Your task to perform on an android device: open app "VLC for Android" (install if not already installed), go to login, and select forgot password Image 0: 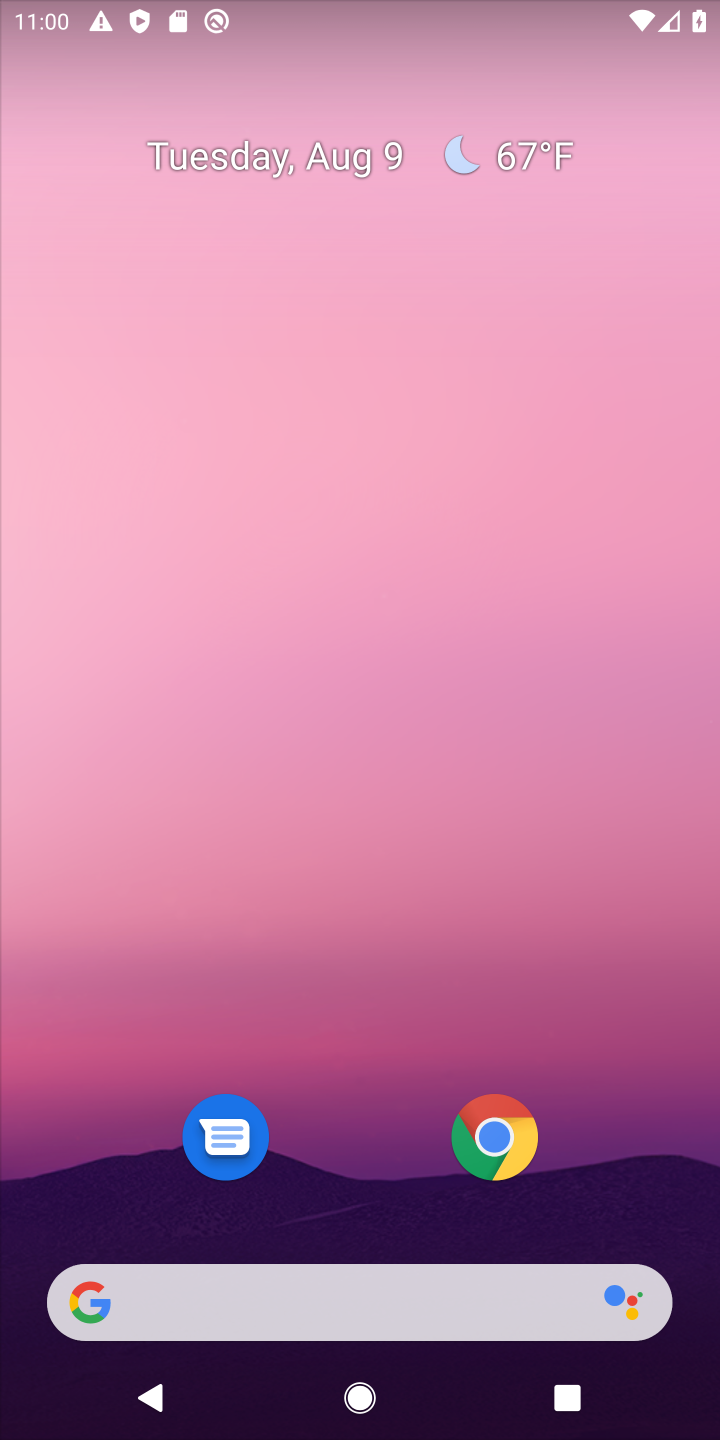
Step 0: drag from (629, 1196) to (375, 24)
Your task to perform on an android device: open app "VLC for Android" (install if not already installed), go to login, and select forgot password Image 1: 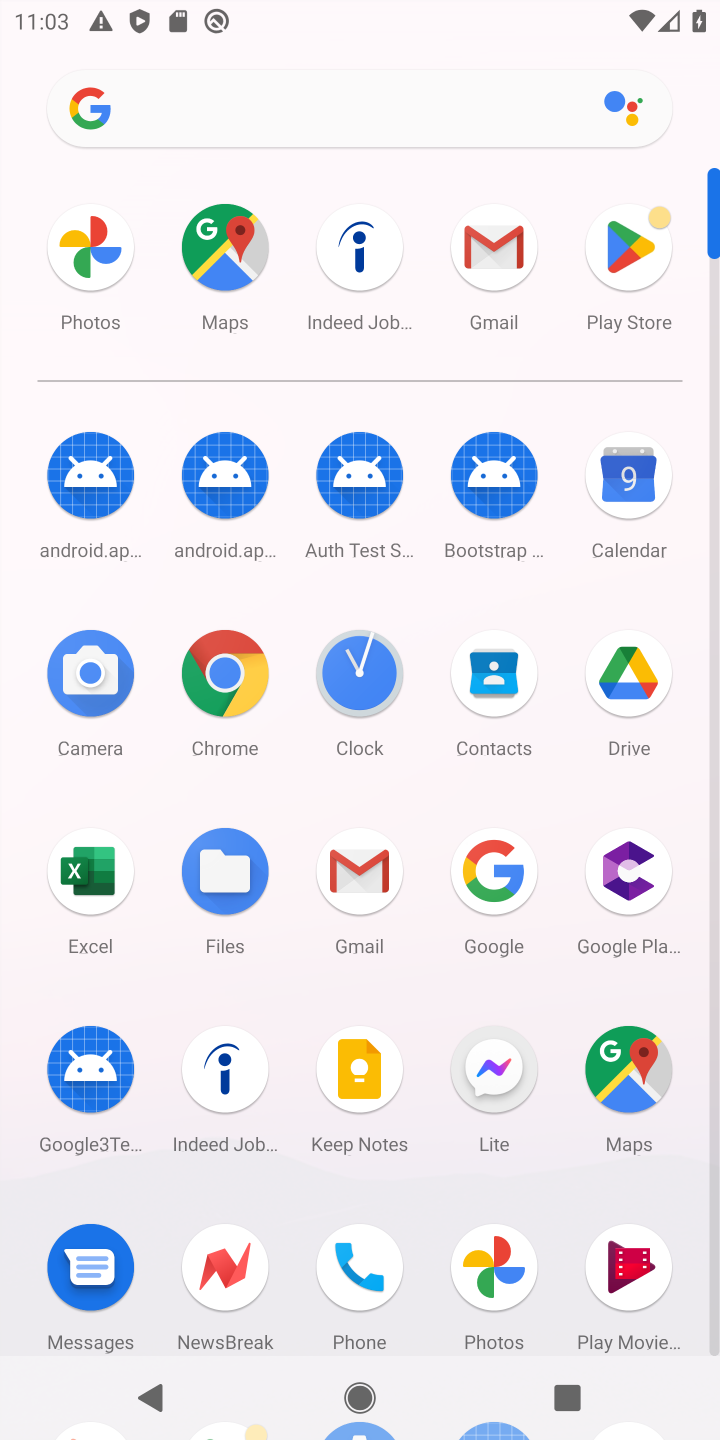
Step 1: click (627, 231)
Your task to perform on an android device: open app "VLC for Android" (install if not already installed), go to login, and select forgot password Image 2: 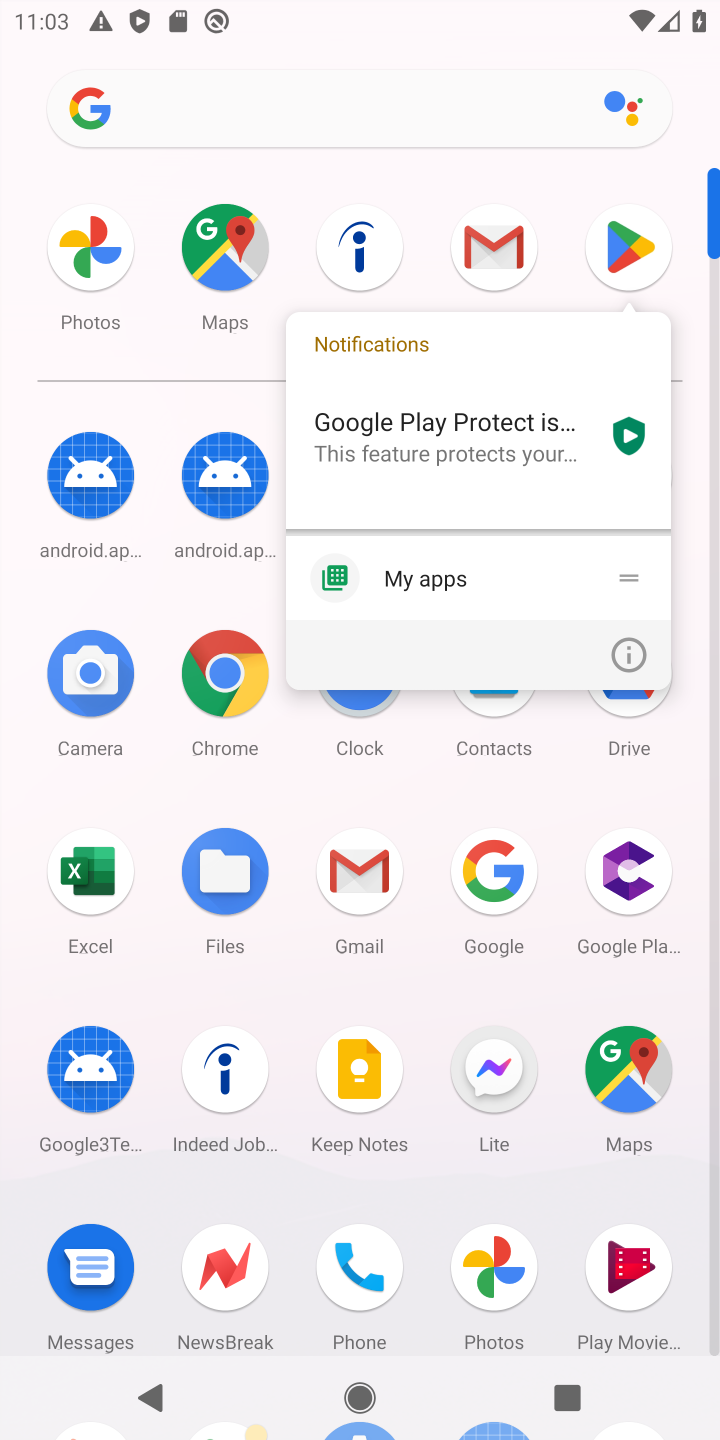
Step 2: click (627, 231)
Your task to perform on an android device: open app "VLC for Android" (install if not already installed), go to login, and select forgot password Image 3: 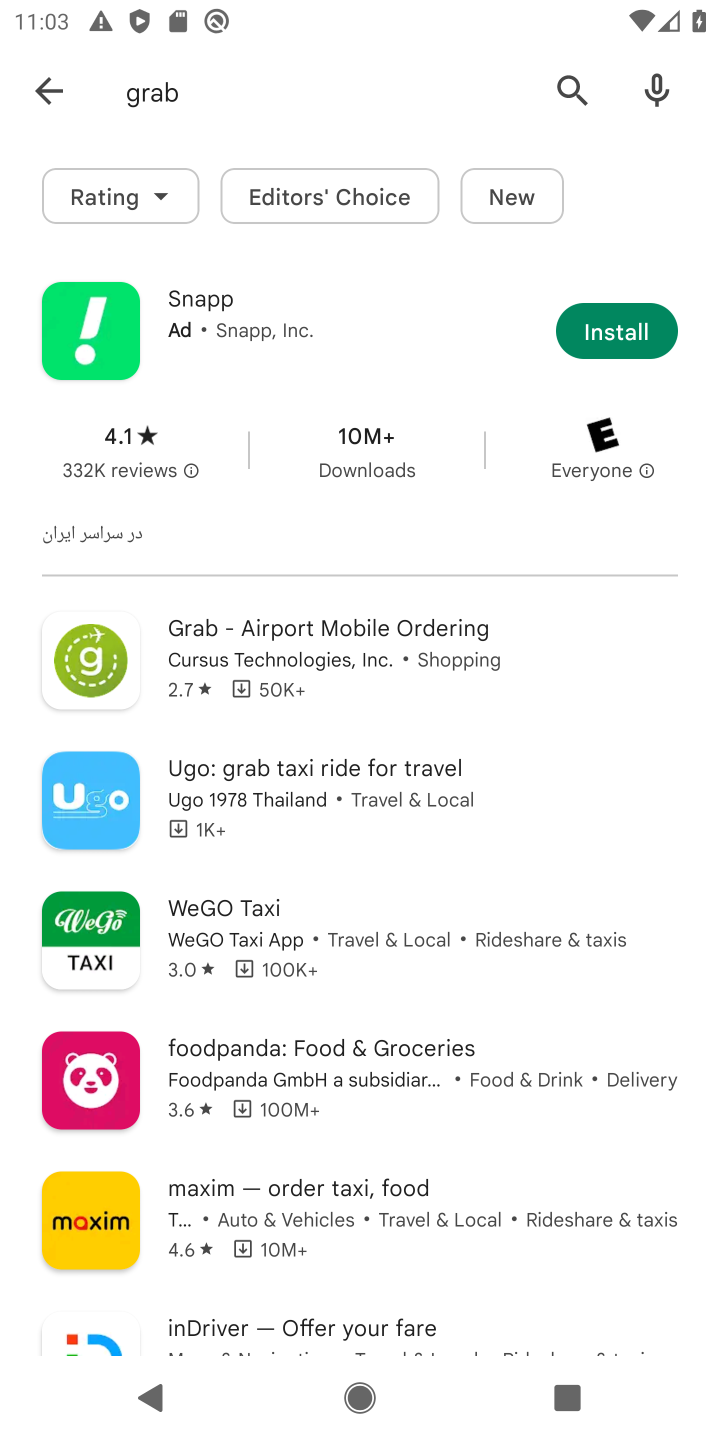
Step 3: press back button
Your task to perform on an android device: open app "VLC for Android" (install if not already installed), go to login, and select forgot password Image 4: 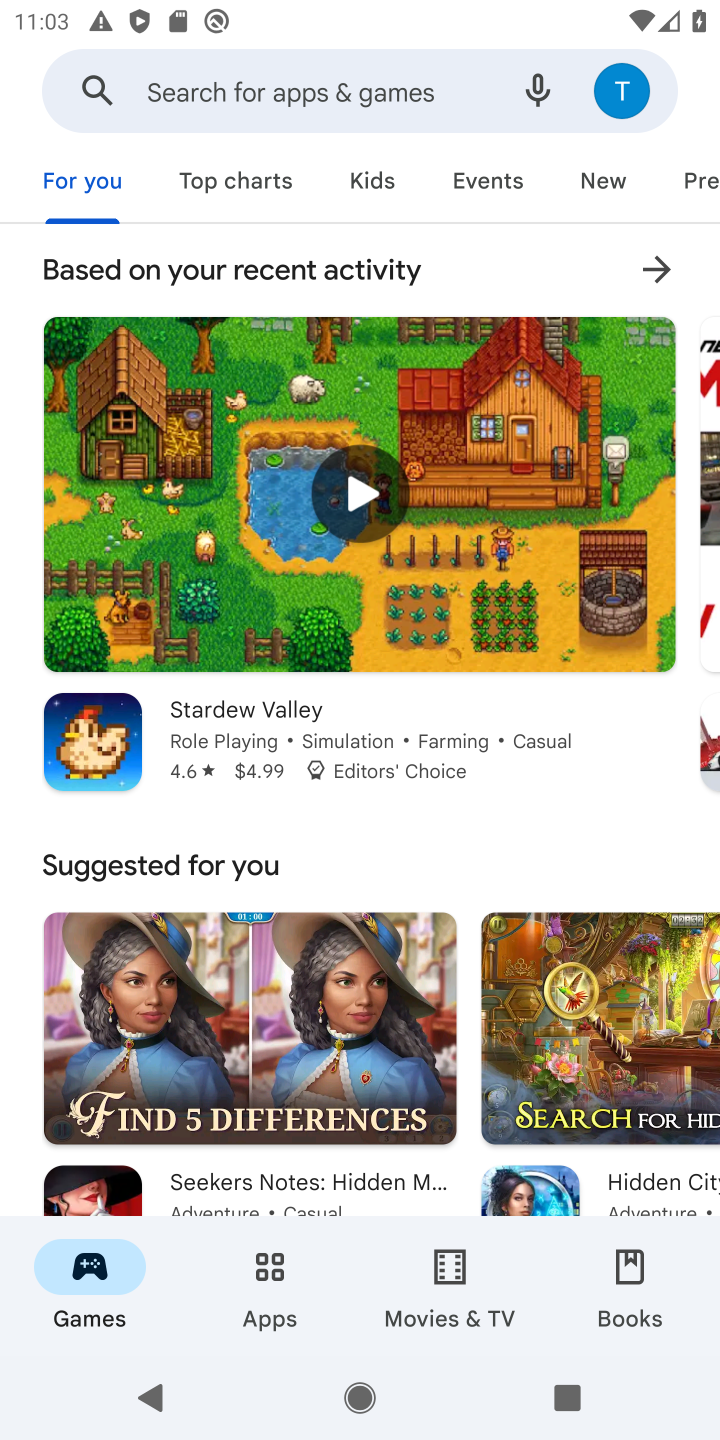
Step 4: click (174, 82)
Your task to perform on an android device: open app "VLC for Android" (install if not already installed), go to login, and select forgot password Image 5: 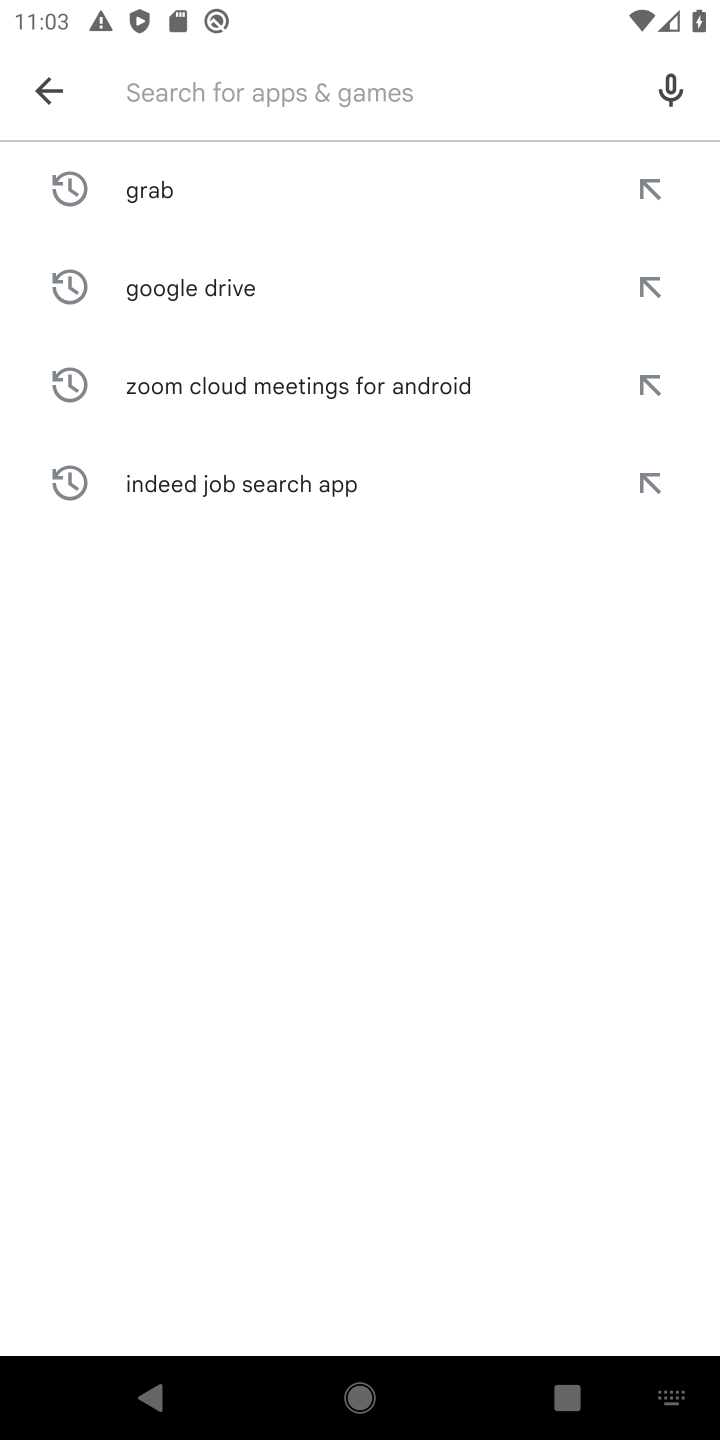
Step 5: type "VLC for Android"
Your task to perform on an android device: open app "VLC for Android" (install if not already installed), go to login, and select forgot password Image 6: 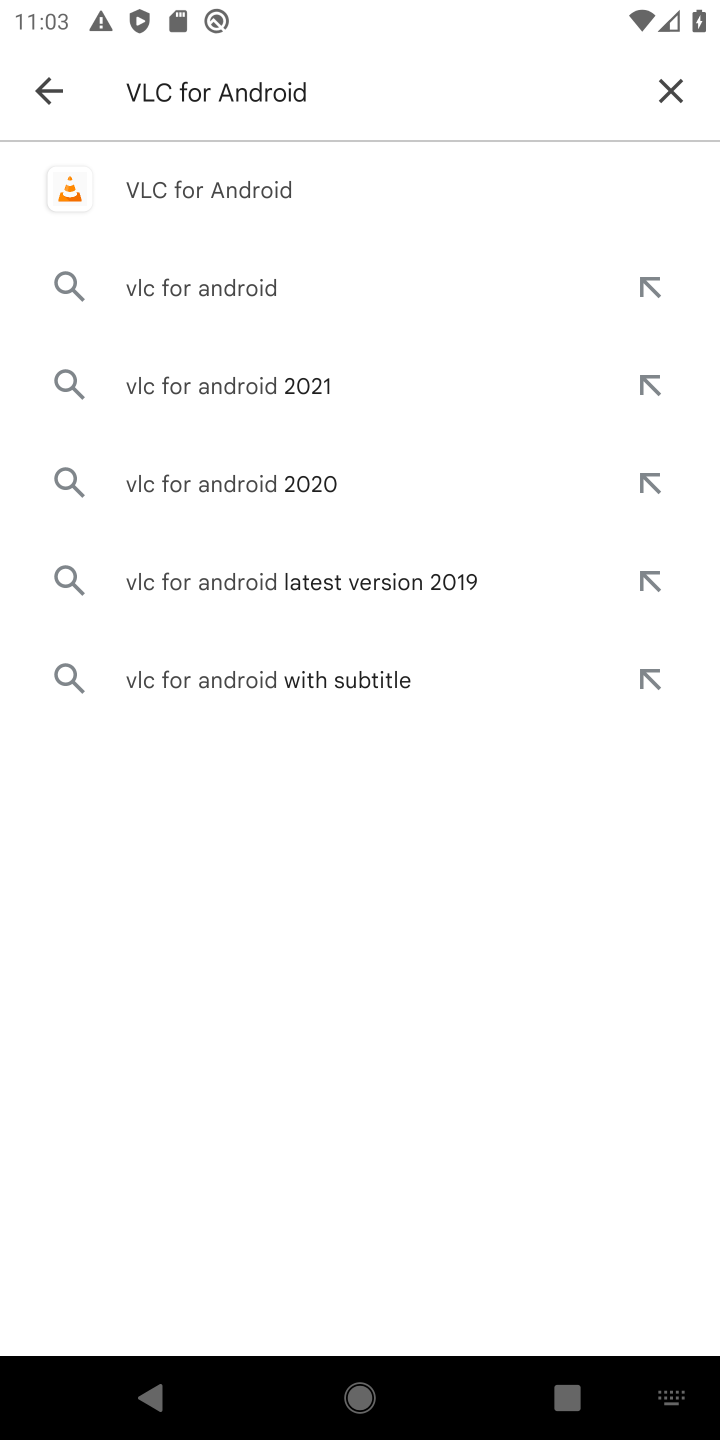
Step 6: click (241, 183)
Your task to perform on an android device: open app "VLC for Android" (install if not already installed), go to login, and select forgot password Image 7: 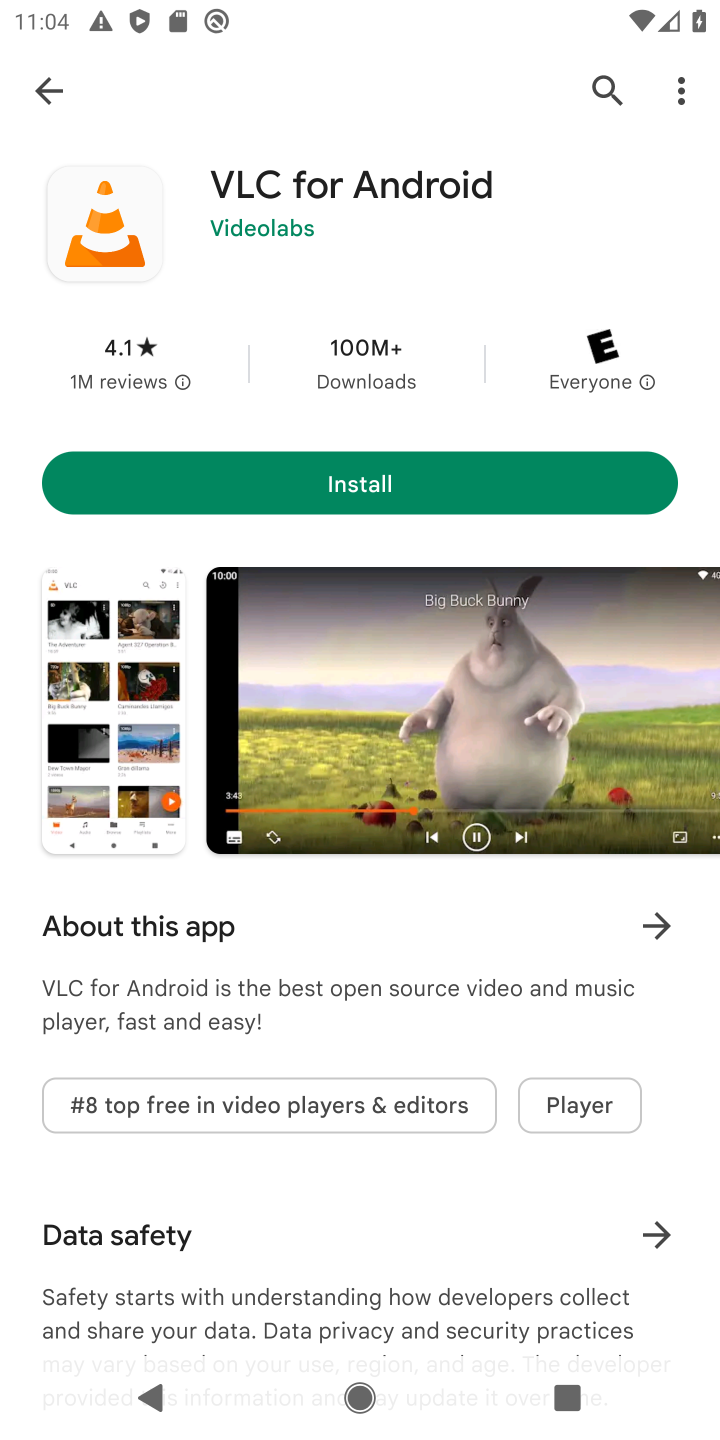
Step 7: task complete